Your task to perform on an android device: check the backup settings in the google photos Image 0: 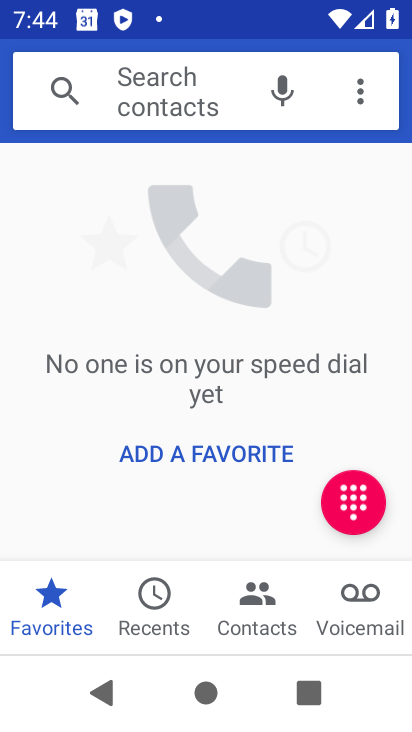
Step 0: press home button
Your task to perform on an android device: check the backup settings in the google photos Image 1: 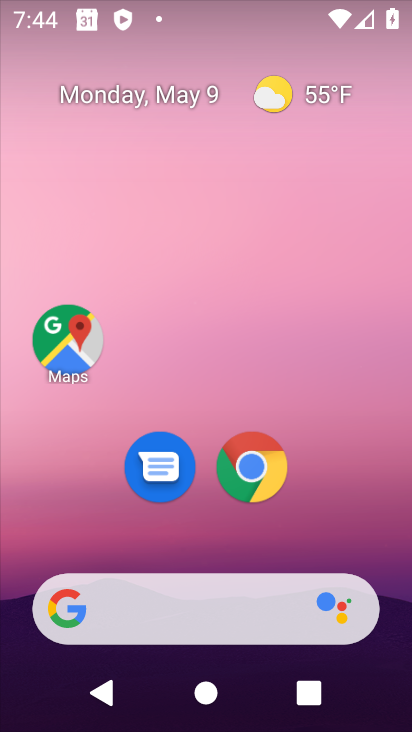
Step 1: drag from (345, 555) to (337, 56)
Your task to perform on an android device: check the backup settings in the google photos Image 2: 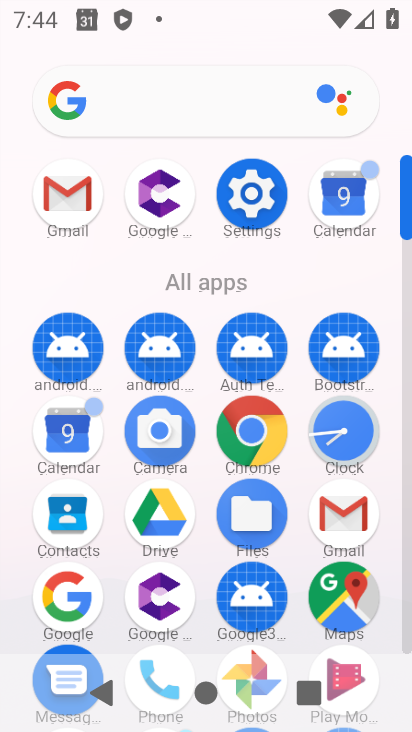
Step 2: drag from (403, 549) to (408, 508)
Your task to perform on an android device: check the backup settings in the google photos Image 3: 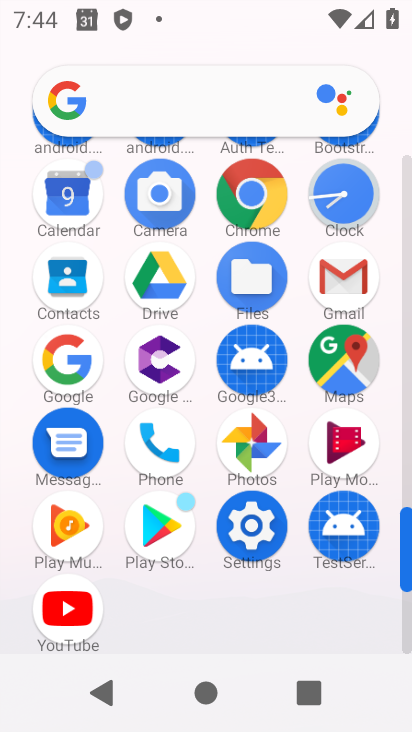
Step 3: click (253, 450)
Your task to perform on an android device: check the backup settings in the google photos Image 4: 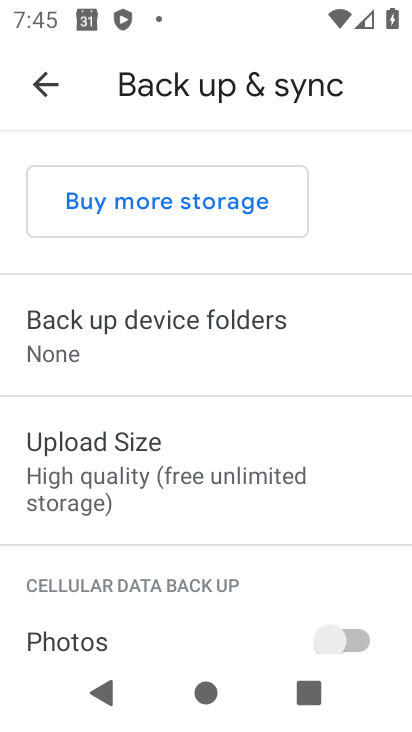
Step 4: task complete